Your task to perform on an android device: What's the news in Venezuela? Image 0: 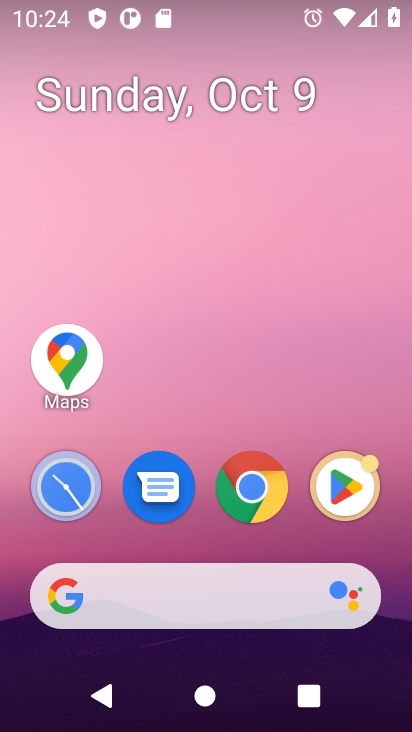
Step 0: drag from (191, 562) to (177, 105)
Your task to perform on an android device: What's the news in Venezuela? Image 1: 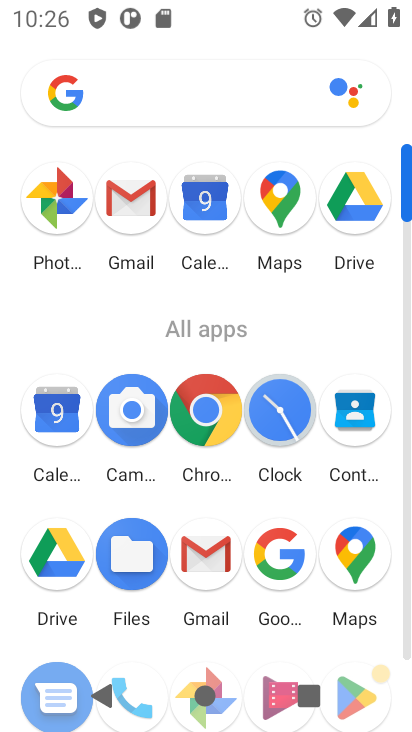
Step 1: click (201, 411)
Your task to perform on an android device: What's the news in Venezuela? Image 2: 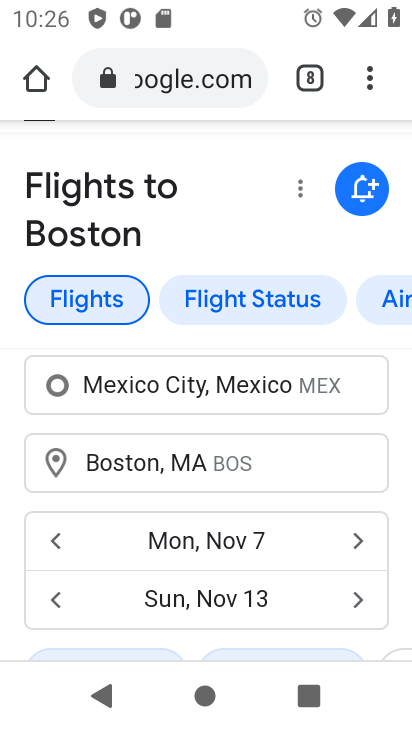
Step 2: click (372, 87)
Your task to perform on an android device: What's the news in Venezuela? Image 3: 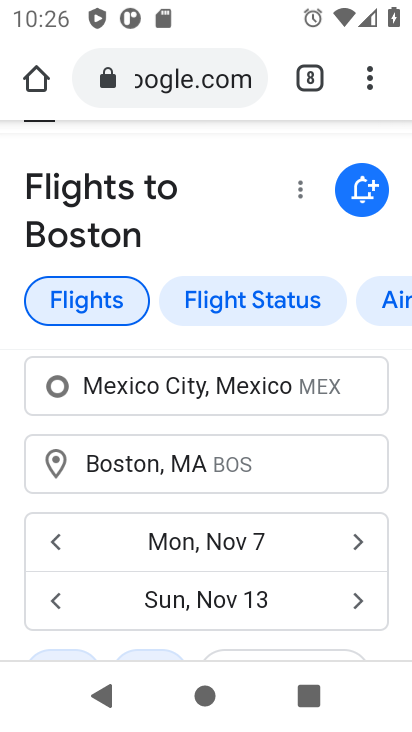
Step 3: drag from (368, 84) to (91, 157)
Your task to perform on an android device: What's the news in Venezuela? Image 4: 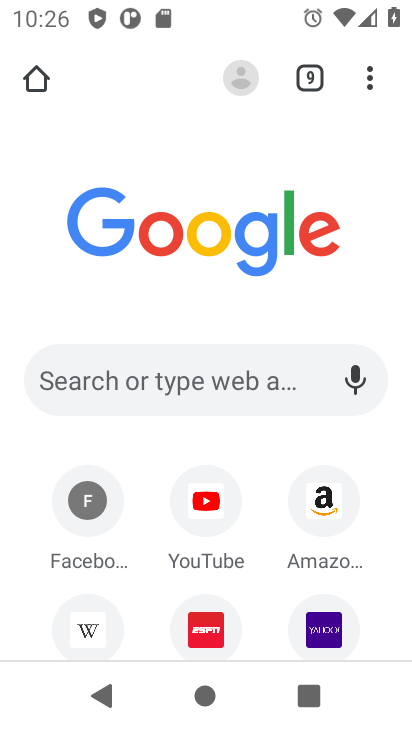
Step 4: click (239, 379)
Your task to perform on an android device: What's the news in Venezuela? Image 5: 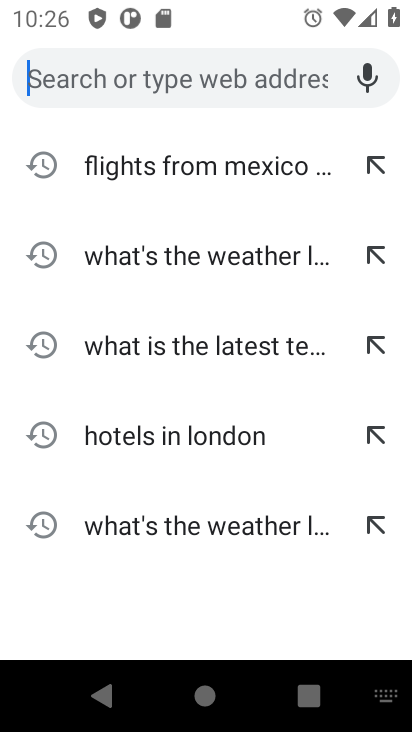
Step 5: type "What's the news in Venezuela?"
Your task to perform on an android device: What's the news in Venezuela? Image 6: 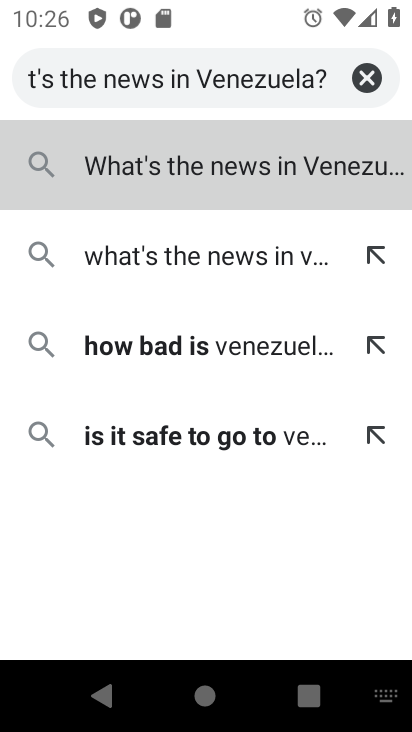
Step 6: type ""
Your task to perform on an android device: What's the news in Venezuela? Image 7: 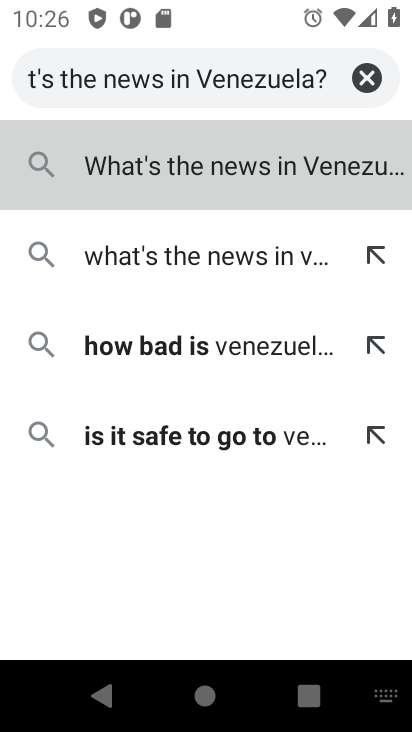
Step 7: click (285, 164)
Your task to perform on an android device: What's the news in Venezuela? Image 8: 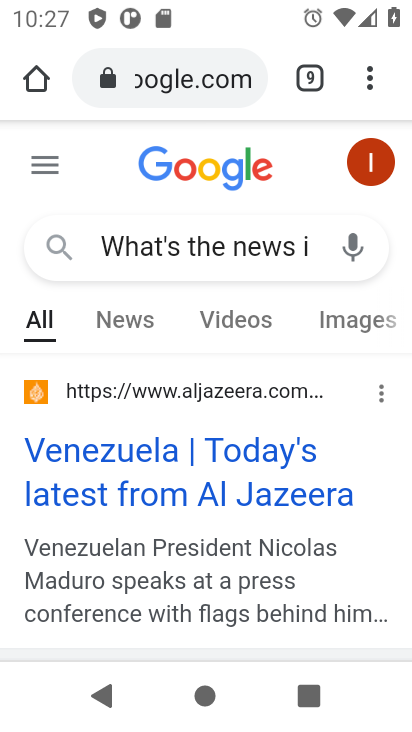
Step 8: click (115, 321)
Your task to perform on an android device: What's the news in Venezuela? Image 9: 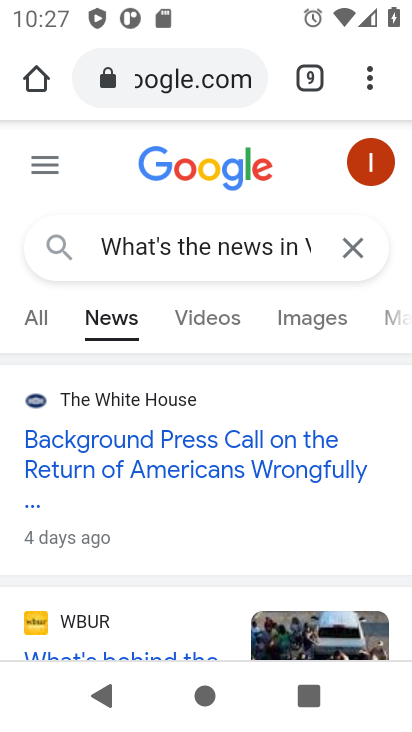
Step 9: click (159, 459)
Your task to perform on an android device: What's the news in Venezuela? Image 10: 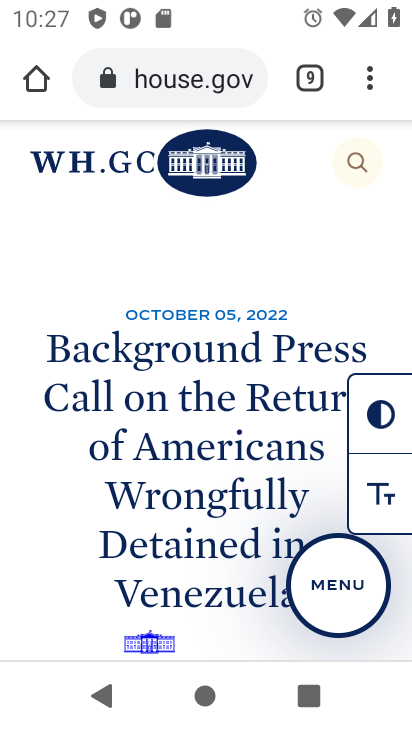
Step 10: task complete